Your task to perform on an android device: turn on bluetooth scan Image 0: 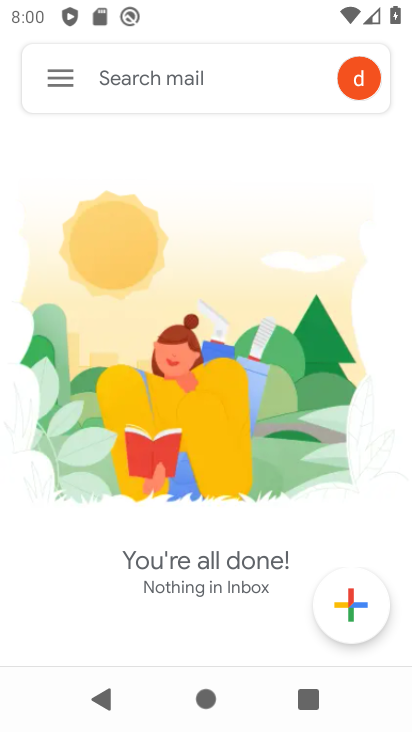
Step 0: press home button
Your task to perform on an android device: turn on bluetooth scan Image 1: 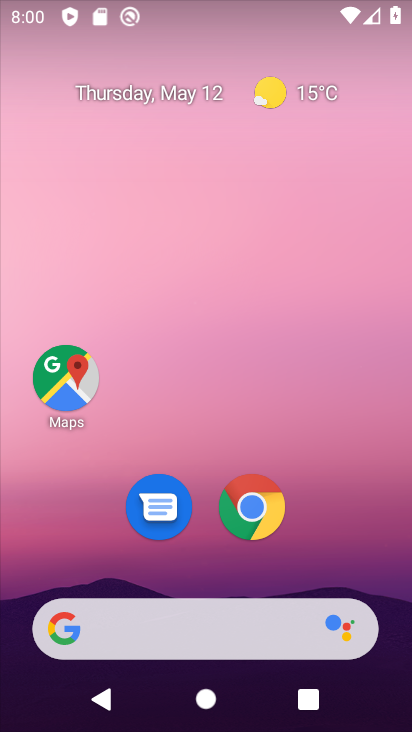
Step 1: drag from (299, 565) to (210, 15)
Your task to perform on an android device: turn on bluetooth scan Image 2: 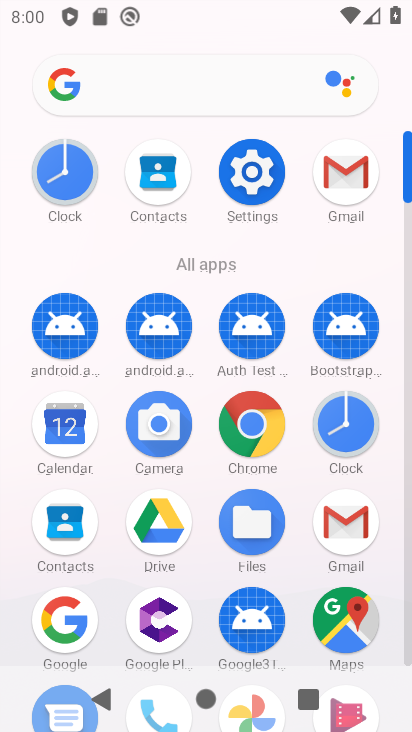
Step 2: click (242, 144)
Your task to perform on an android device: turn on bluetooth scan Image 3: 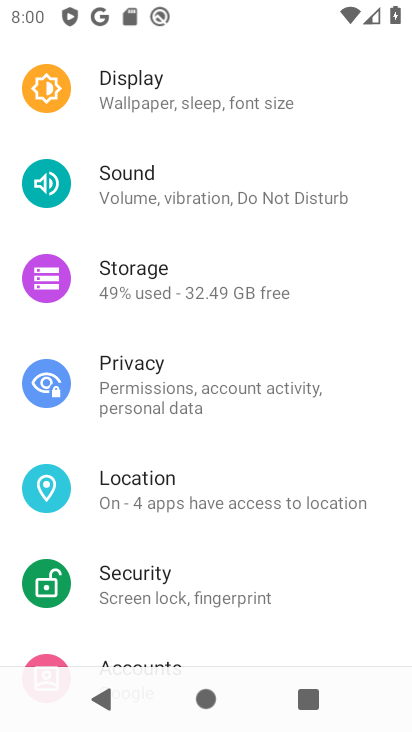
Step 3: click (151, 493)
Your task to perform on an android device: turn on bluetooth scan Image 4: 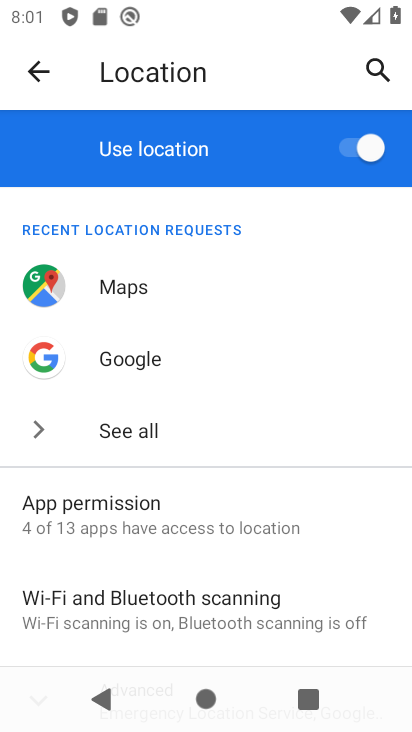
Step 4: click (142, 598)
Your task to perform on an android device: turn on bluetooth scan Image 5: 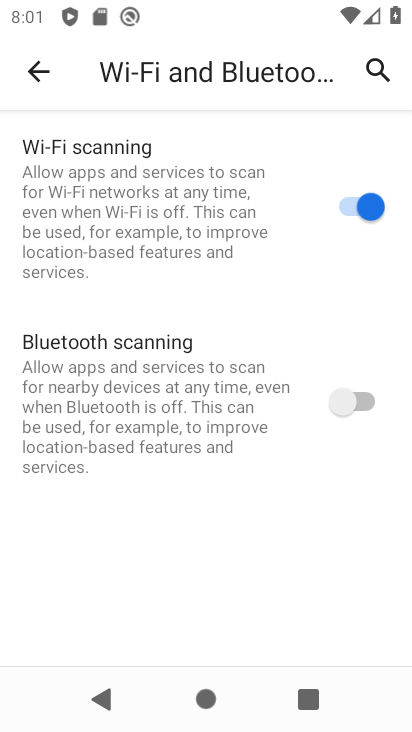
Step 5: click (149, 431)
Your task to perform on an android device: turn on bluetooth scan Image 6: 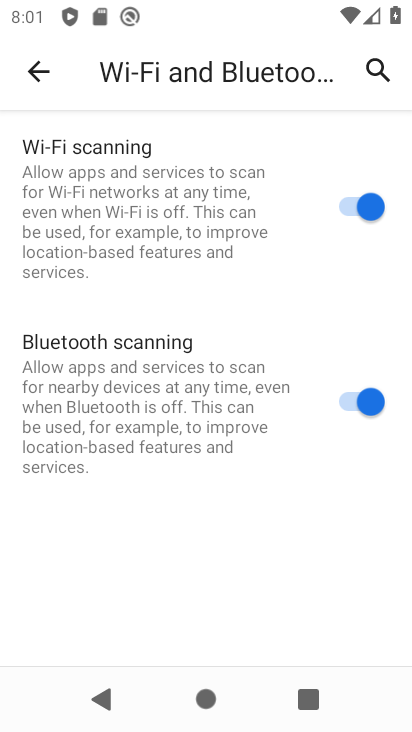
Step 6: task complete